Your task to perform on an android device: Go to notification settings Image 0: 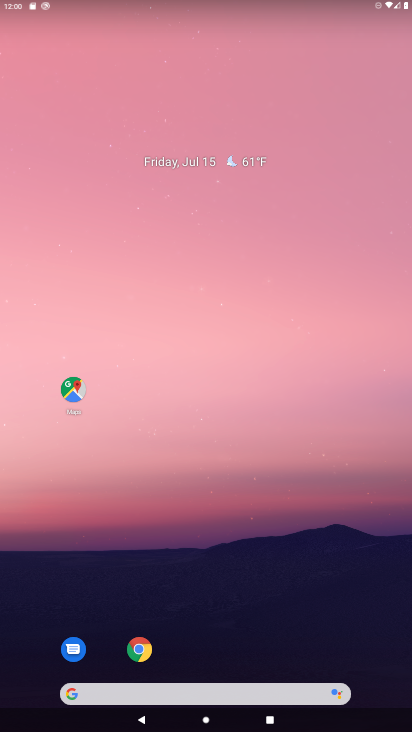
Step 0: drag from (230, 633) to (224, 24)
Your task to perform on an android device: Go to notification settings Image 1: 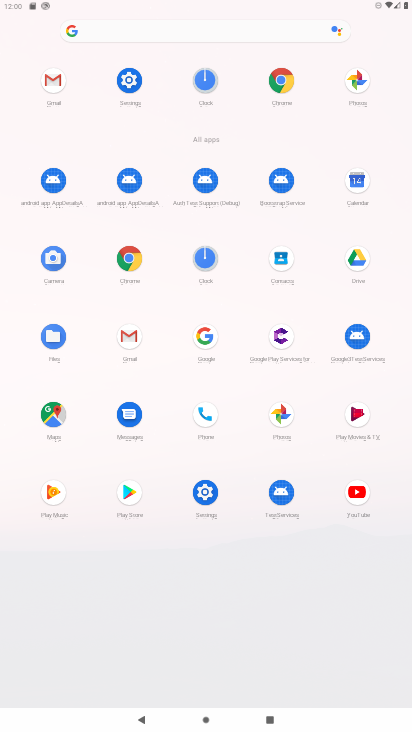
Step 1: click (130, 121)
Your task to perform on an android device: Go to notification settings Image 2: 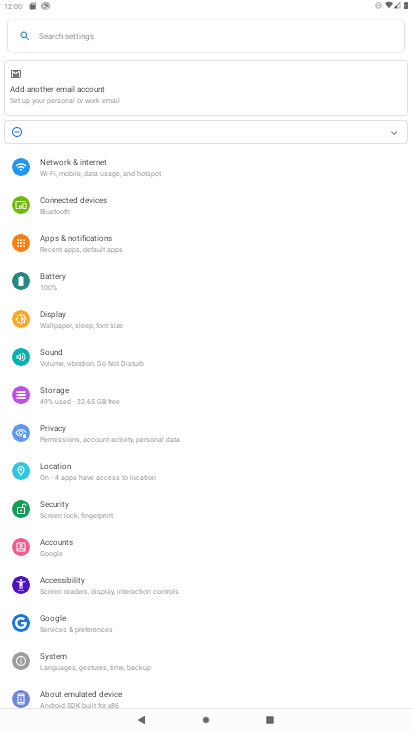
Step 2: click (99, 253)
Your task to perform on an android device: Go to notification settings Image 3: 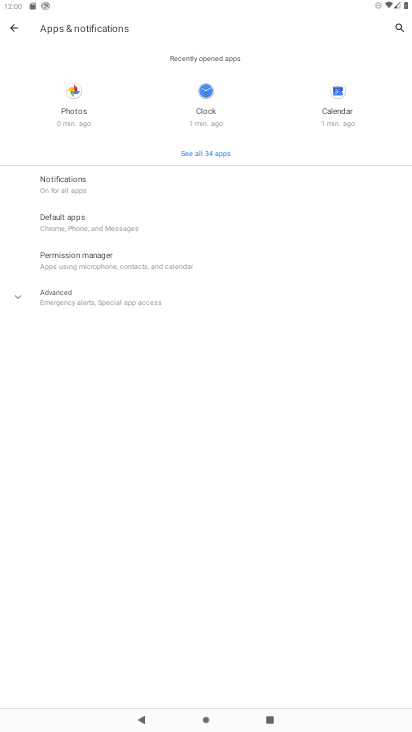
Step 3: click (63, 184)
Your task to perform on an android device: Go to notification settings Image 4: 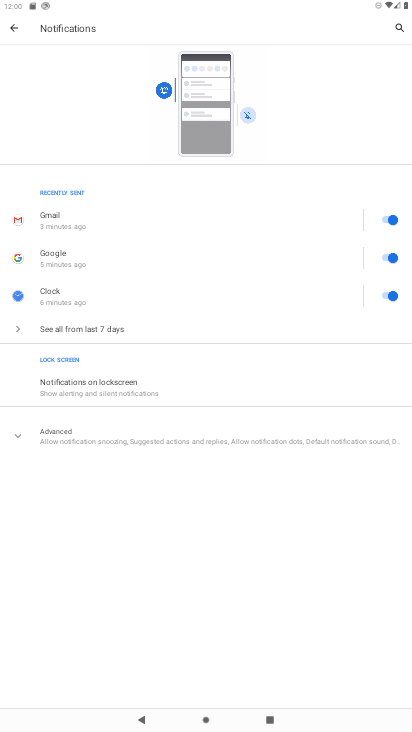
Step 4: task complete